Your task to perform on an android device: Open privacy settings Image 0: 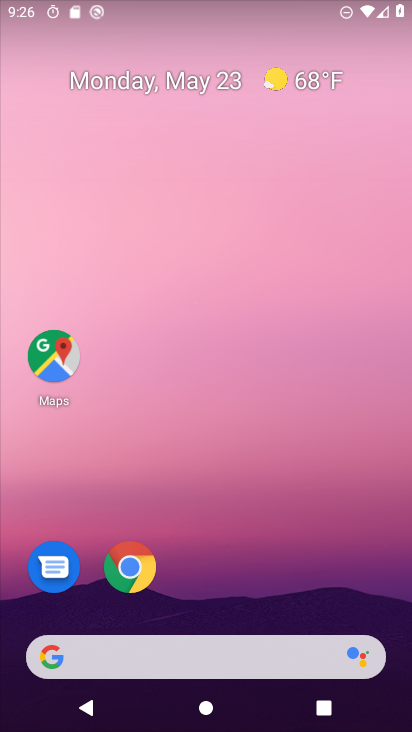
Step 0: drag from (176, 612) to (296, 97)
Your task to perform on an android device: Open privacy settings Image 1: 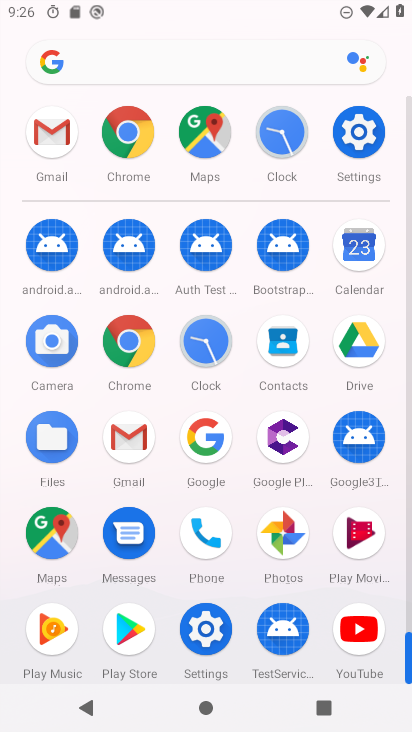
Step 1: click (358, 123)
Your task to perform on an android device: Open privacy settings Image 2: 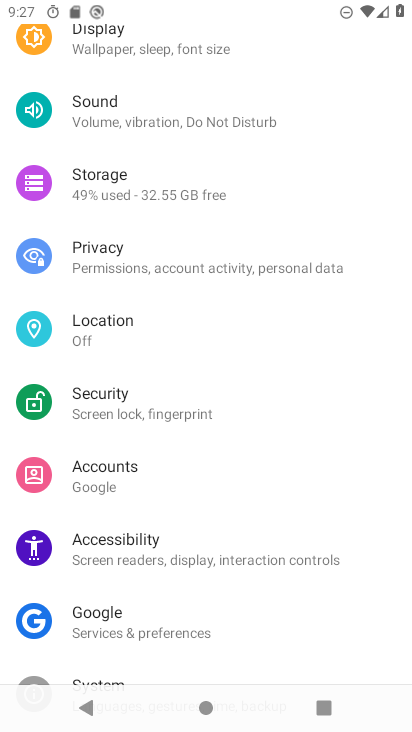
Step 2: click (126, 249)
Your task to perform on an android device: Open privacy settings Image 3: 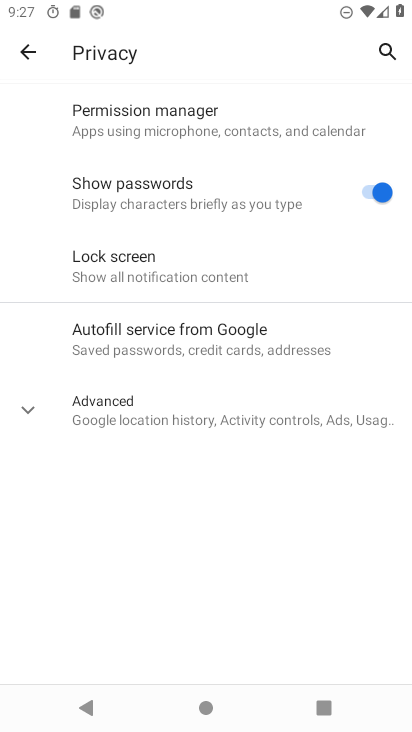
Step 3: task complete